Your task to perform on an android device: Open calendar and show me the second week of next month Image 0: 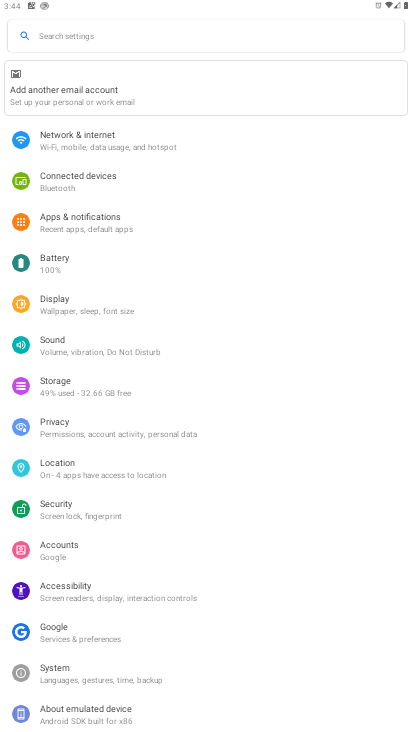
Step 0: press home button
Your task to perform on an android device: Open calendar and show me the second week of next month Image 1: 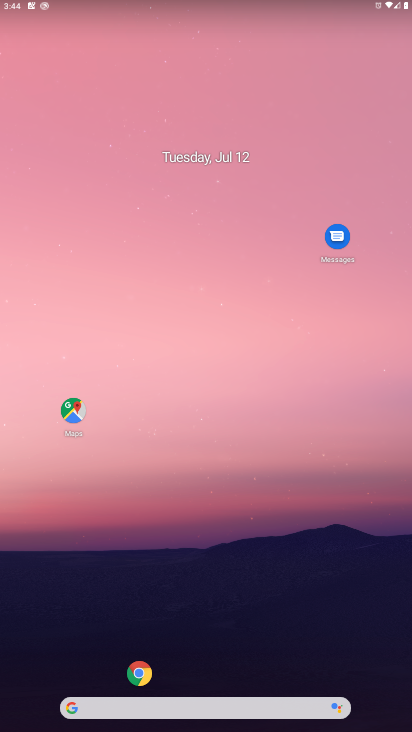
Step 1: drag from (23, 695) to (157, 40)
Your task to perform on an android device: Open calendar and show me the second week of next month Image 2: 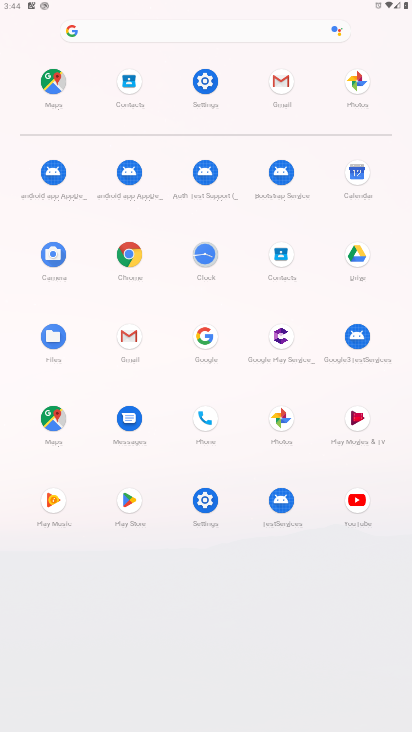
Step 2: click (352, 178)
Your task to perform on an android device: Open calendar and show me the second week of next month Image 3: 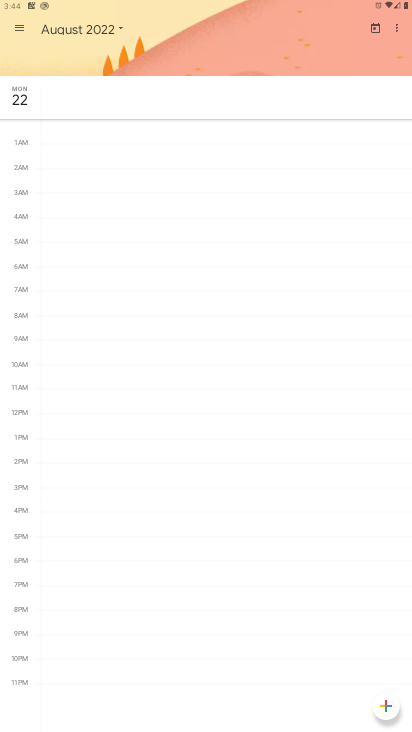
Step 3: click (25, 14)
Your task to perform on an android device: Open calendar and show me the second week of next month Image 4: 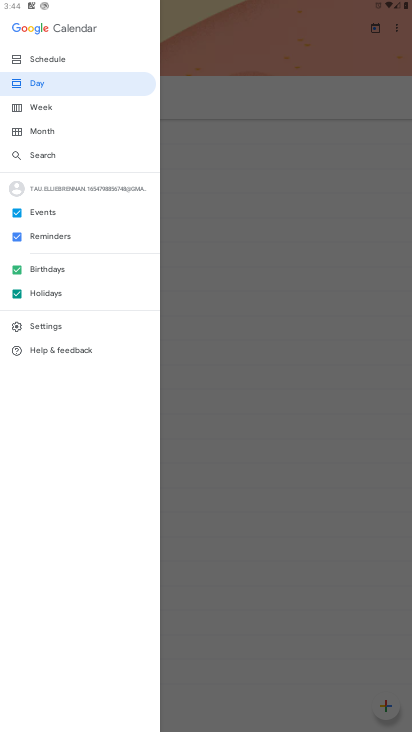
Step 4: click (20, 18)
Your task to perform on an android device: Open calendar and show me the second week of next month Image 5: 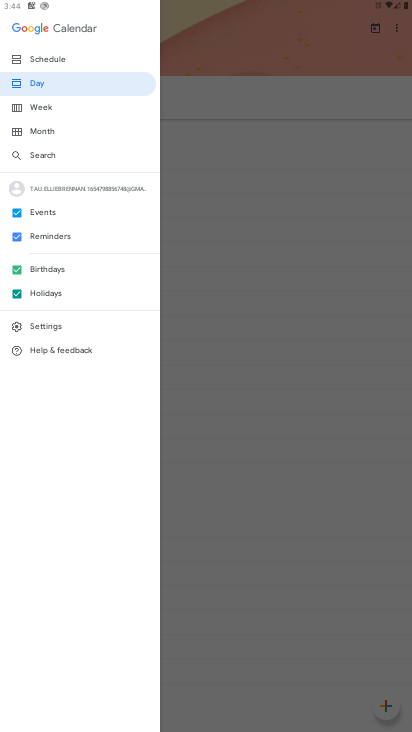
Step 5: click (36, 108)
Your task to perform on an android device: Open calendar and show me the second week of next month Image 6: 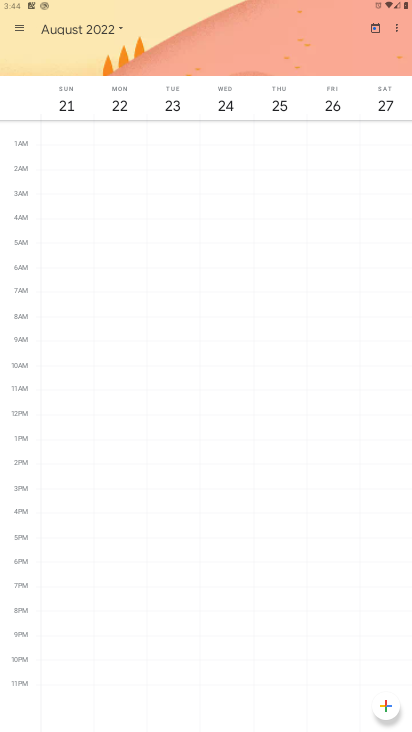
Step 6: click (12, 20)
Your task to perform on an android device: Open calendar and show me the second week of next month Image 7: 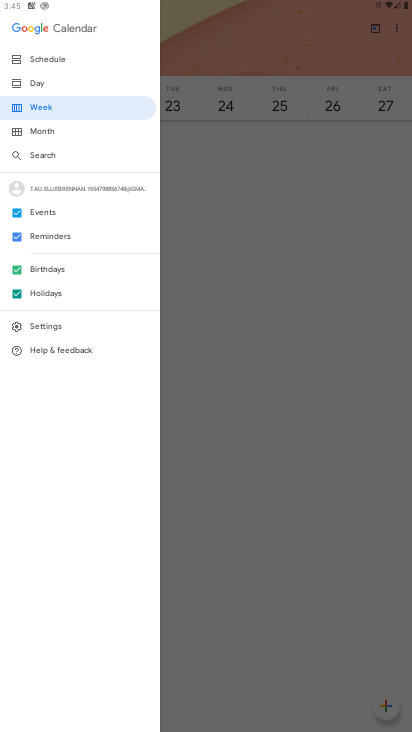
Step 7: click (50, 129)
Your task to perform on an android device: Open calendar and show me the second week of next month Image 8: 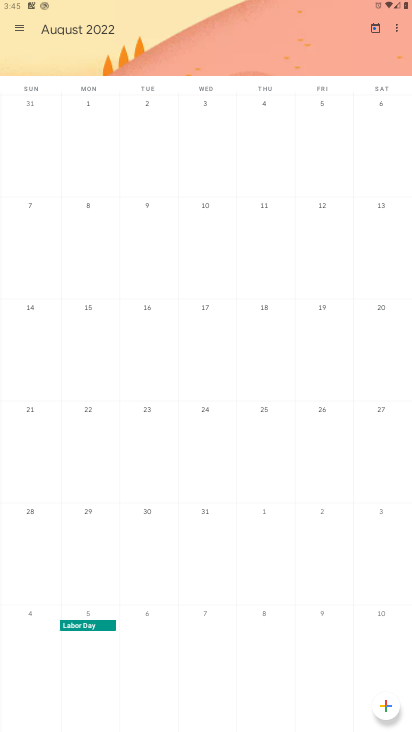
Step 8: click (362, 383)
Your task to perform on an android device: Open calendar and show me the second week of next month Image 9: 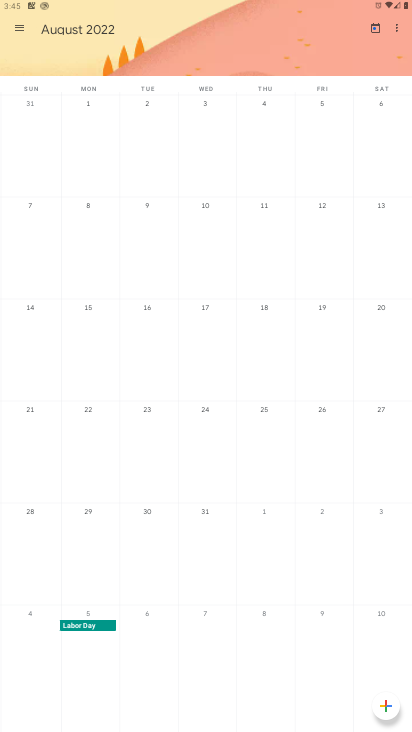
Step 9: drag from (7, 256) to (351, 247)
Your task to perform on an android device: Open calendar and show me the second week of next month Image 10: 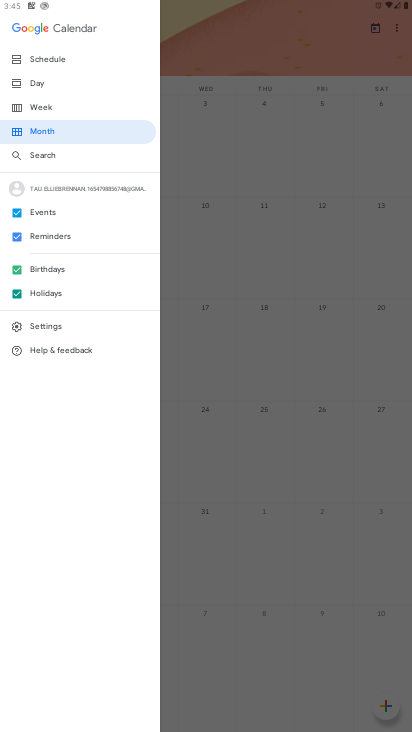
Step 10: click (208, 322)
Your task to perform on an android device: Open calendar and show me the second week of next month Image 11: 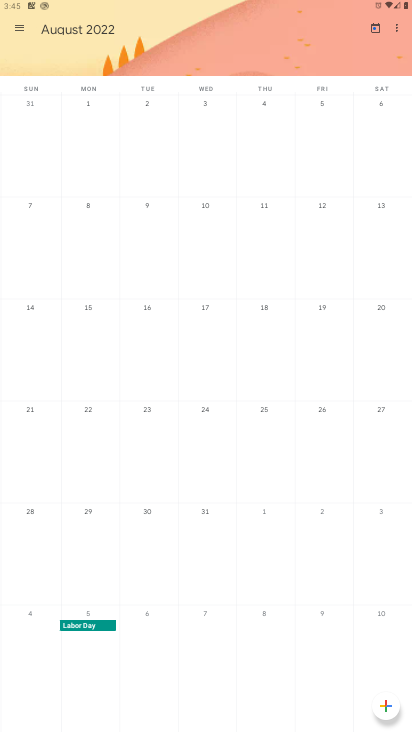
Step 11: click (90, 218)
Your task to perform on an android device: Open calendar and show me the second week of next month Image 12: 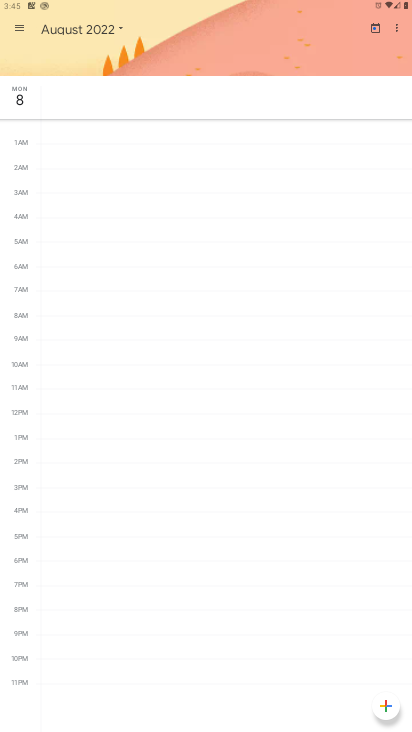
Step 12: task complete